Your task to perform on an android device: Search for Mexican restaurants on Maps Image 0: 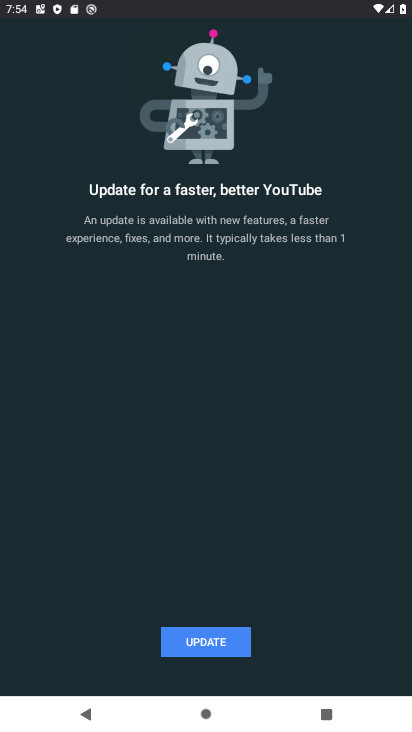
Step 0: press home button
Your task to perform on an android device: Search for Mexican restaurants on Maps Image 1: 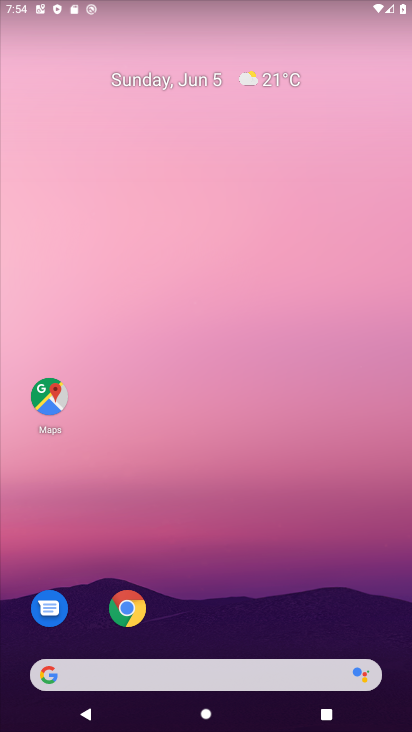
Step 1: drag from (316, 573) to (289, 143)
Your task to perform on an android device: Search for Mexican restaurants on Maps Image 2: 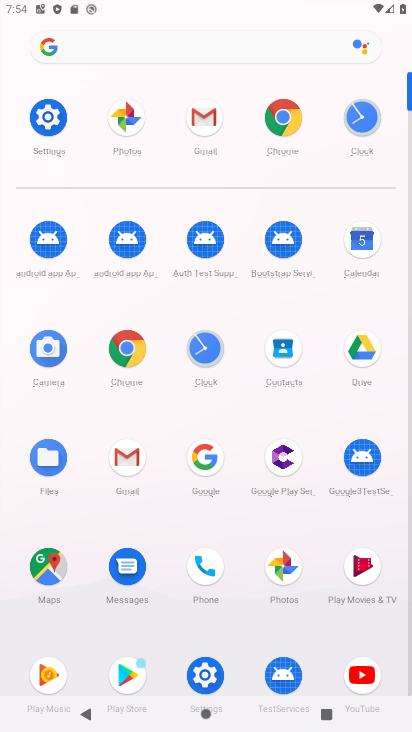
Step 2: click (50, 562)
Your task to perform on an android device: Search for Mexican restaurants on Maps Image 3: 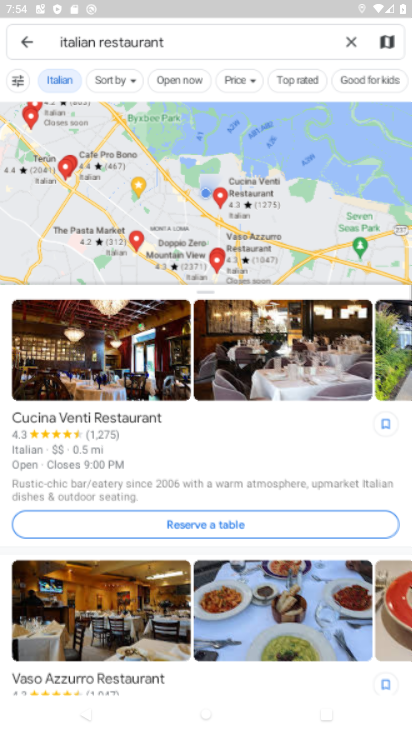
Step 3: click (355, 47)
Your task to perform on an android device: Search for Mexican restaurants on Maps Image 4: 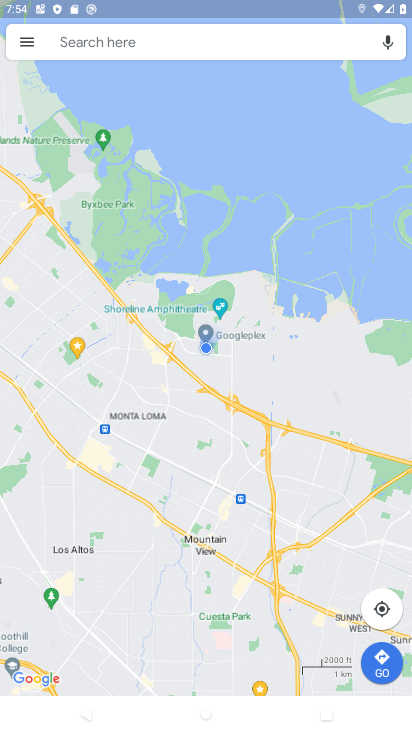
Step 4: click (181, 40)
Your task to perform on an android device: Search for Mexican restaurants on Maps Image 5: 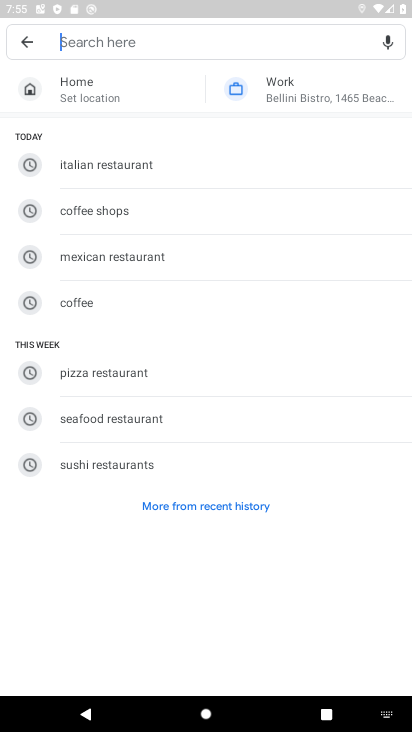
Step 5: type "mexican restaurants "
Your task to perform on an android device: Search for Mexican restaurants on Maps Image 6: 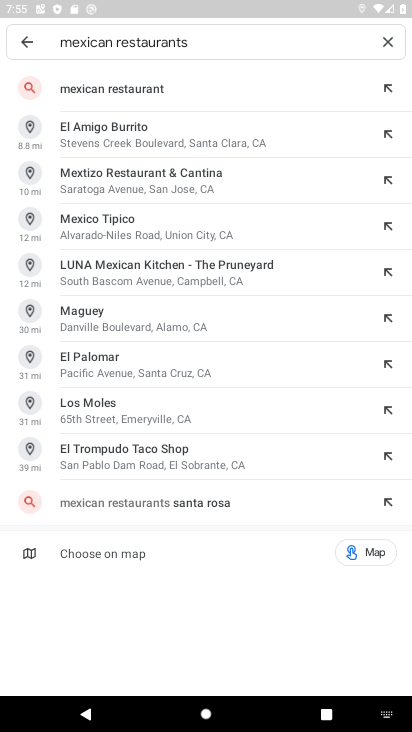
Step 6: click (137, 98)
Your task to perform on an android device: Search for Mexican restaurants on Maps Image 7: 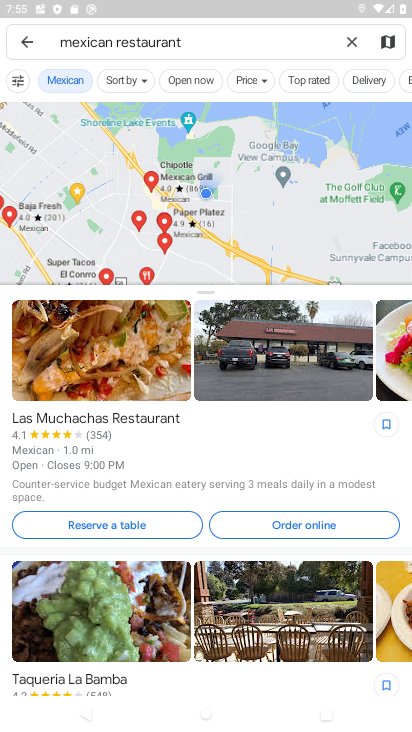
Step 7: task complete